Your task to perform on an android device: toggle data saver in the chrome app Image 0: 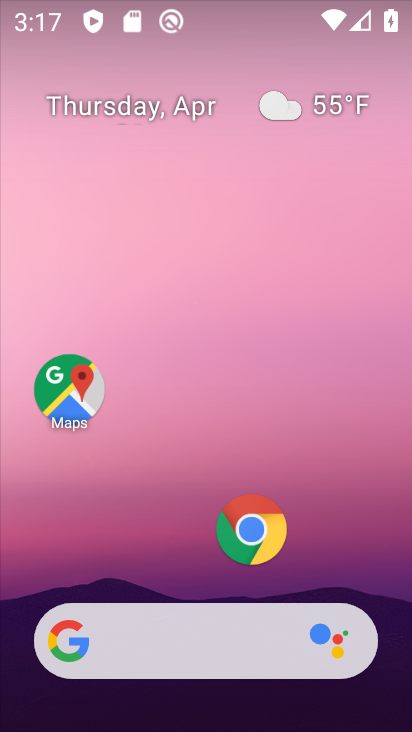
Step 0: click (254, 531)
Your task to perform on an android device: toggle data saver in the chrome app Image 1: 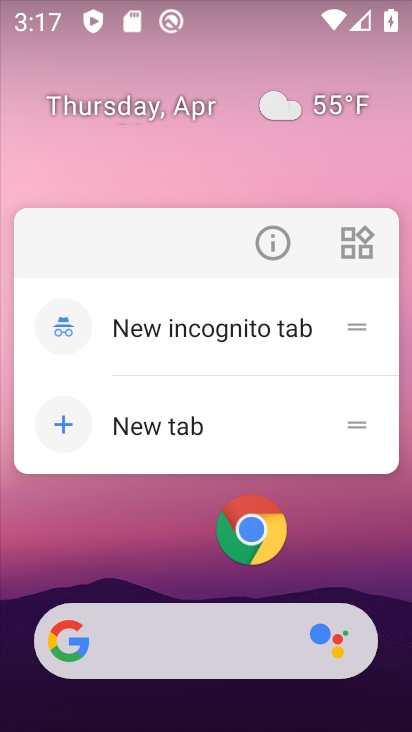
Step 1: click (278, 245)
Your task to perform on an android device: toggle data saver in the chrome app Image 2: 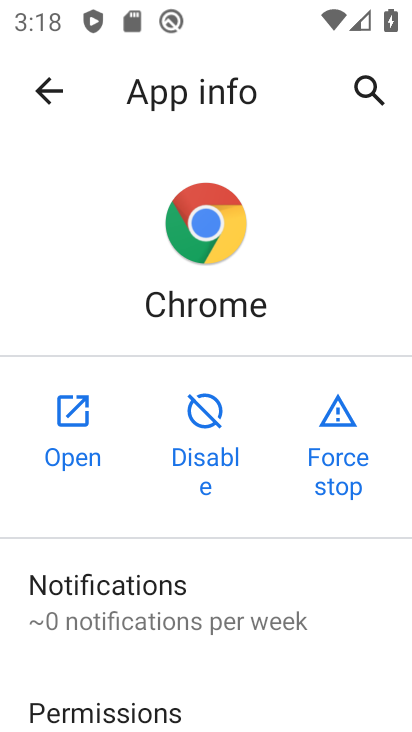
Step 2: click (70, 429)
Your task to perform on an android device: toggle data saver in the chrome app Image 3: 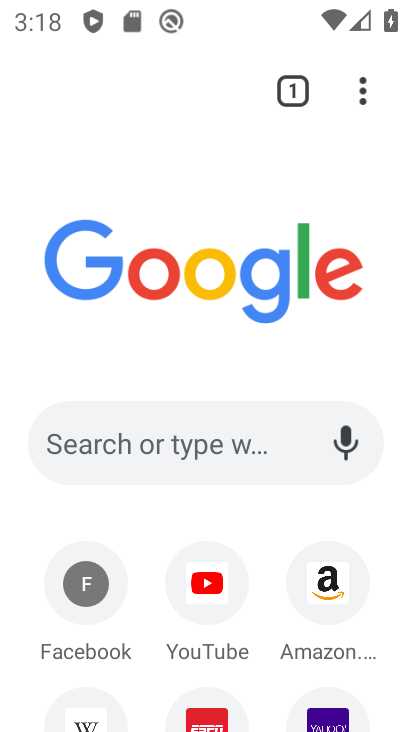
Step 3: click (369, 88)
Your task to perform on an android device: toggle data saver in the chrome app Image 4: 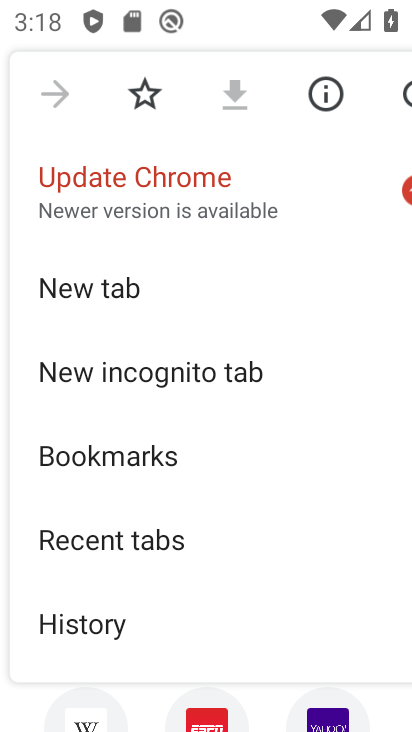
Step 4: drag from (84, 561) to (185, 179)
Your task to perform on an android device: toggle data saver in the chrome app Image 5: 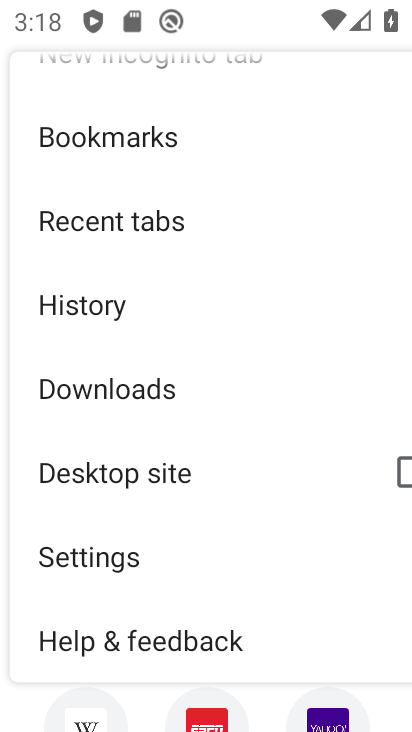
Step 5: drag from (147, 601) to (175, 343)
Your task to perform on an android device: toggle data saver in the chrome app Image 6: 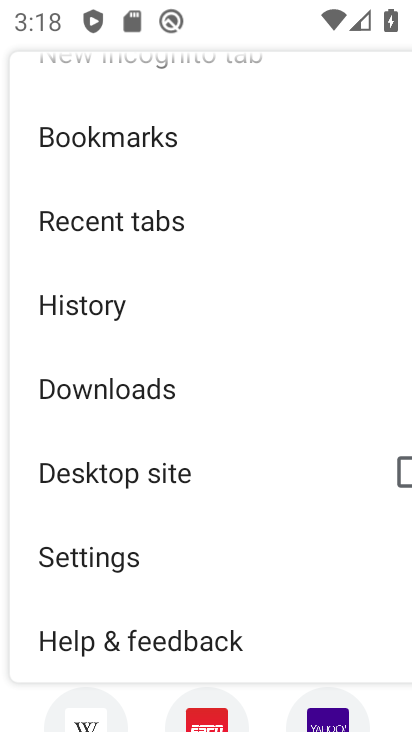
Step 6: click (69, 556)
Your task to perform on an android device: toggle data saver in the chrome app Image 7: 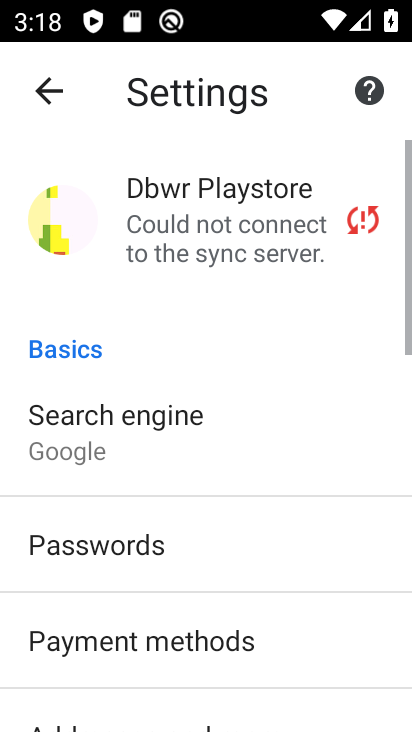
Step 7: drag from (115, 578) to (212, 155)
Your task to perform on an android device: toggle data saver in the chrome app Image 8: 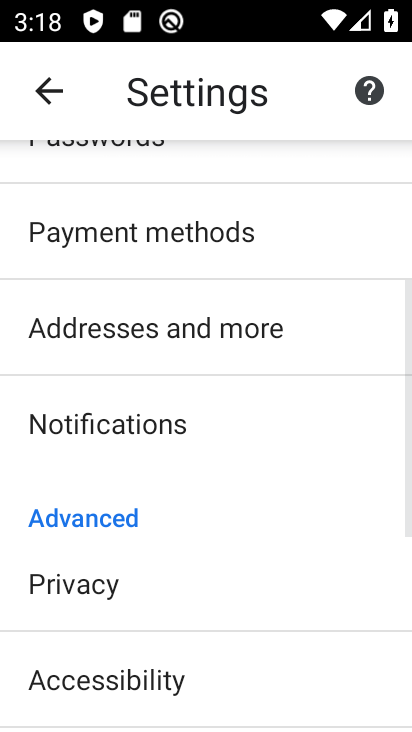
Step 8: drag from (136, 619) to (224, 262)
Your task to perform on an android device: toggle data saver in the chrome app Image 9: 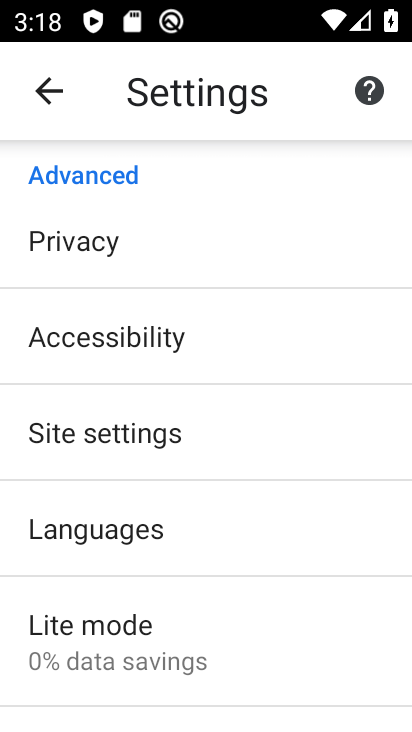
Step 9: click (101, 641)
Your task to perform on an android device: toggle data saver in the chrome app Image 10: 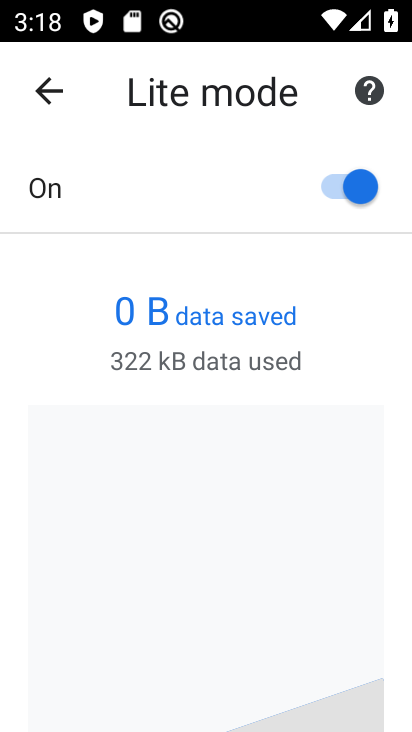
Step 10: click (347, 175)
Your task to perform on an android device: toggle data saver in the chrome app Image 11: 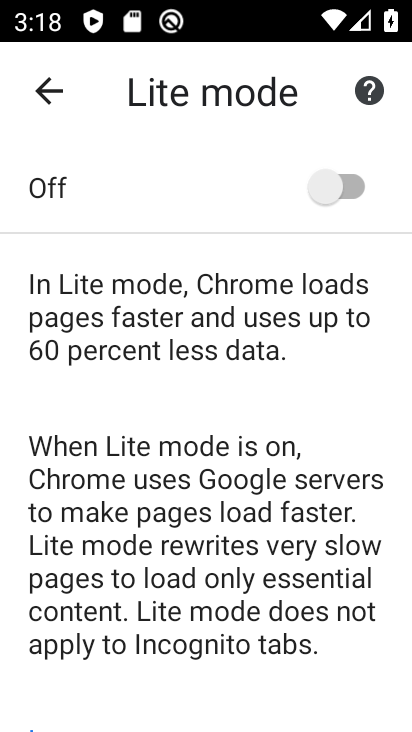
Step 11: task complete